Your task to perform on an android device: set the stopwatch Image 0: 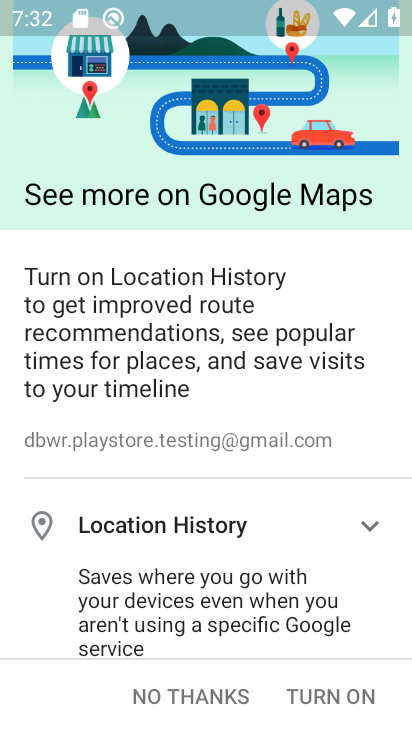
Step 0: click (186, 701)
Your task to perform on an android device: set the stopwatch Image 1: 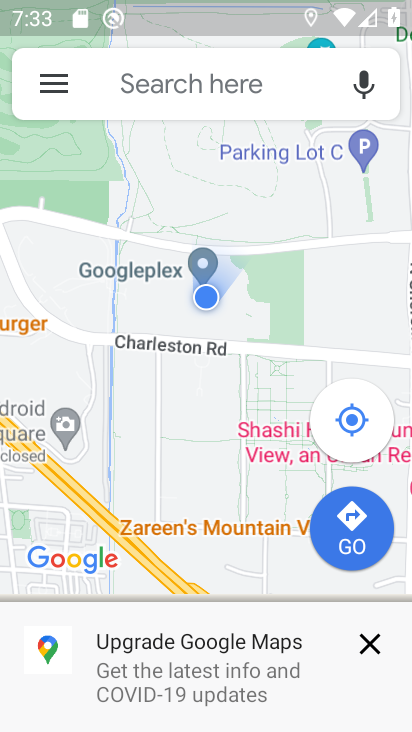
Step 1: press home button
Your task to perform on an android device: set the stopwatch Image 2: 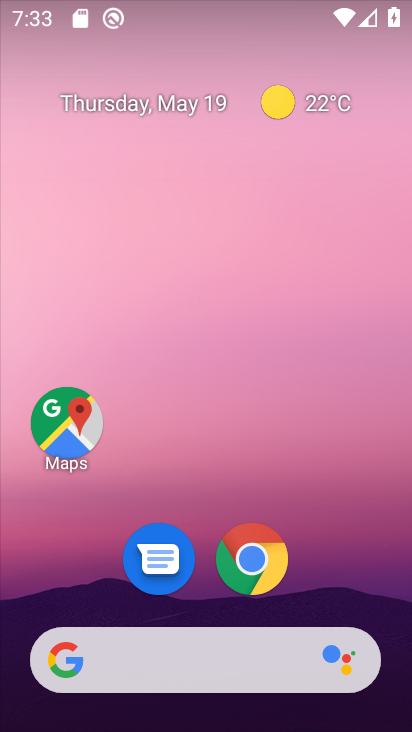
Step 2: drag from (321, 599) to (255, 33)
Your task to perform on an android device: set the stopwatch Image 3: 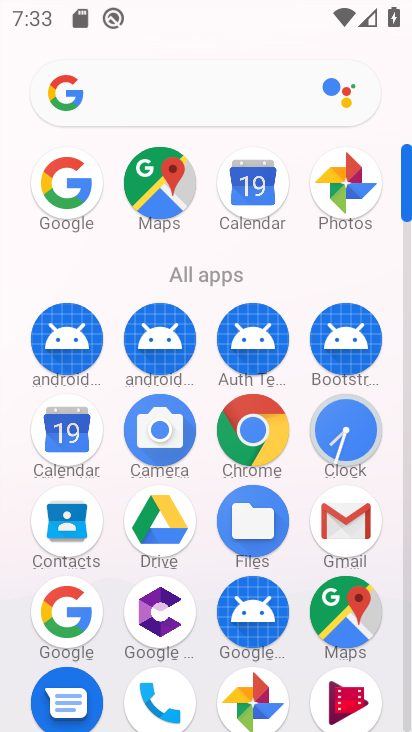
Step 3: click (328, 432)
Your task to perform on an android device: set the stopwatch Image 4: 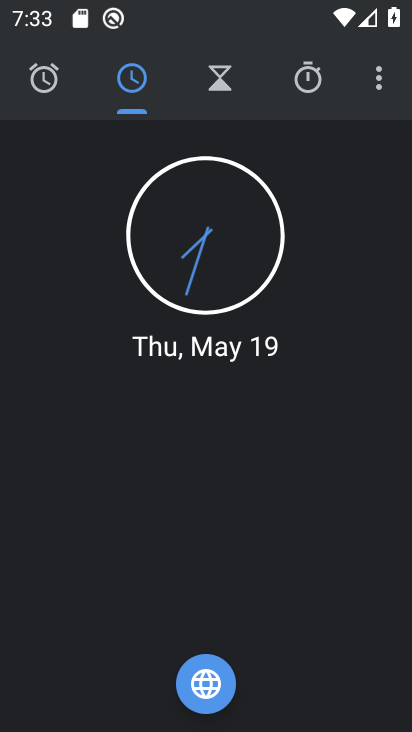
Step 4: click (314, 87)
Your task to perform on an android device: set the stopwatch Image 5: 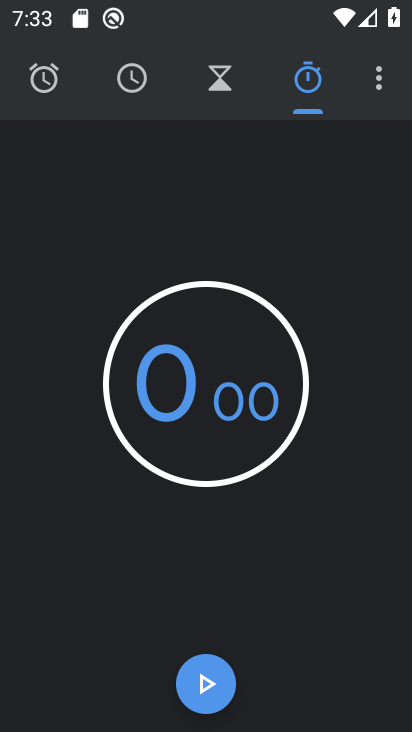
Step 5: click (209, 702)
Your task to perform on an android device: set the stopwatch Image 6: 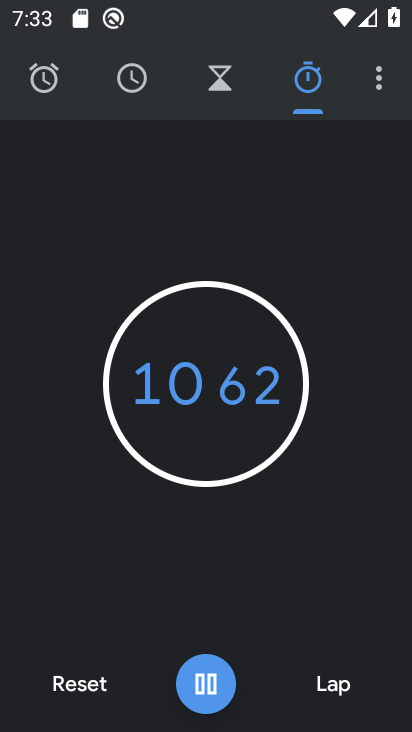
Step 6: task complete